Your task to perform on an android device: change the upload size in google photos Image 0: 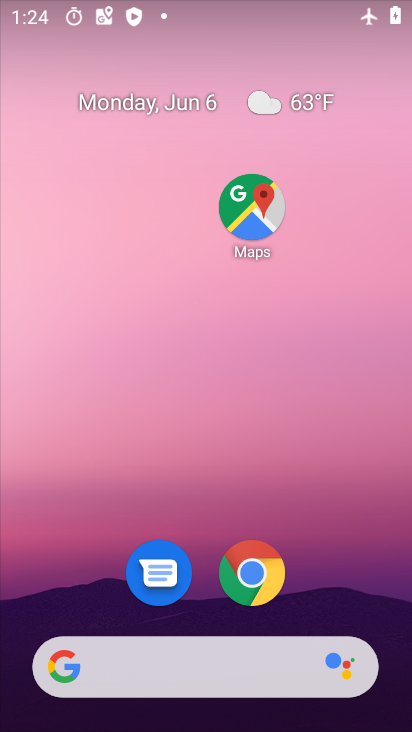
Step 0: drag from (204, 495) to (164, 54)
Your task to perform on an android device: change the upload size in google photos Image 1: 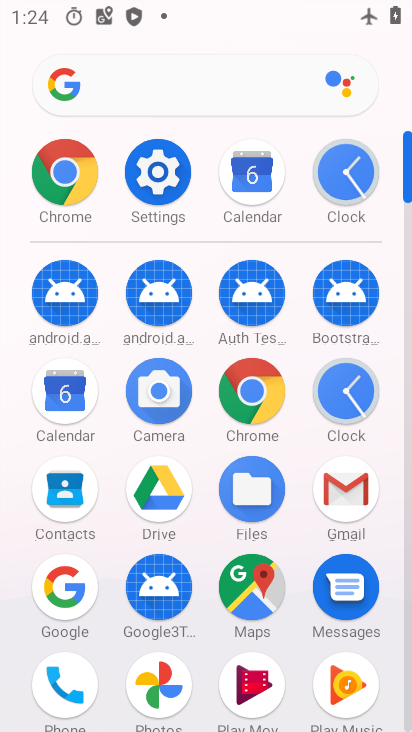
Step 1: drag from (220, 247) to (208, 83)
Your task to perform on an android device: change the upload size in google photos Image 2: 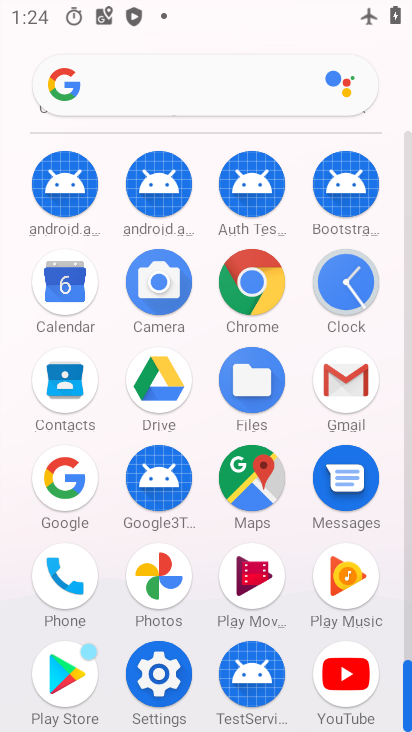
Step 2: click (160, 588)
Your task to perform on an android device: change the upload size in google photos Image 3: 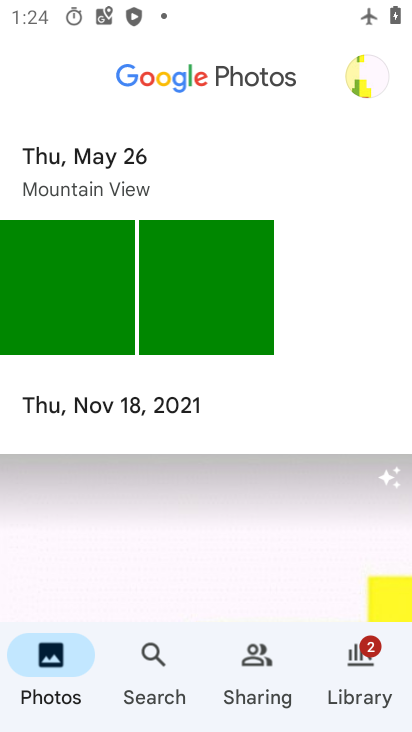
Step 3: click (355, 82)
Your task to perform on an android device: change the upload size in google photos Image 4: 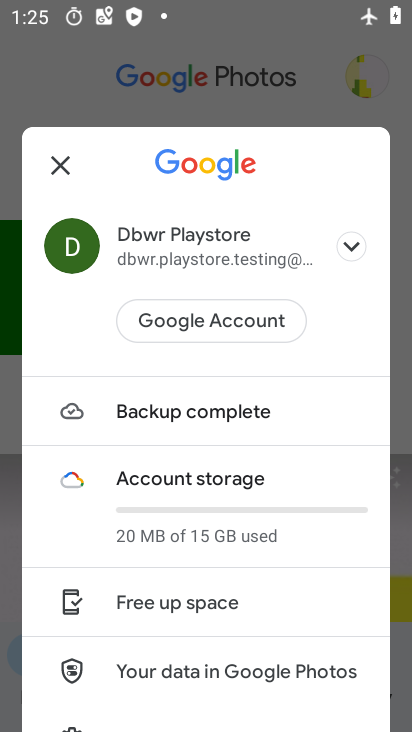
Step 4: click (244, 417)
Your task to perform on an android device: change the upload size in google photos Image 5: 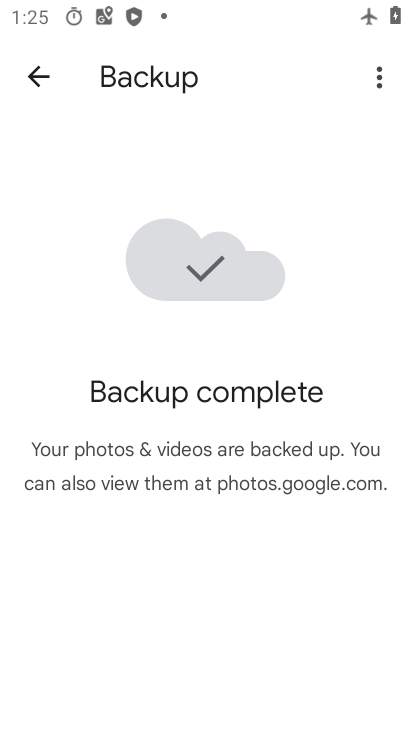
Step 5: click (380, 72)
Your task to perform on an android device: change the upload size in google photos Image 6: 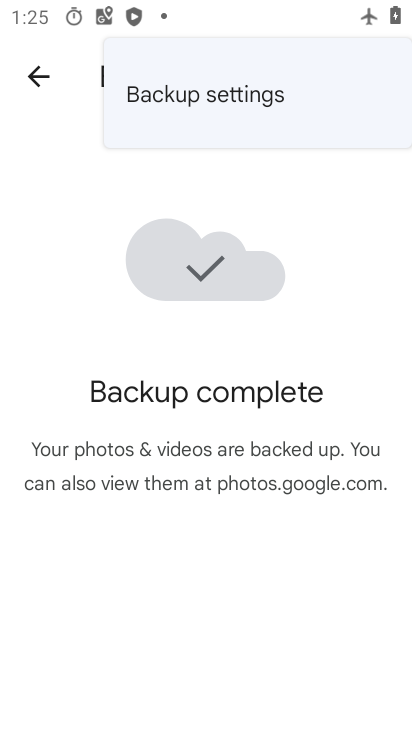
Step 6: click (297, 87)
Your task to perform on an android device: change the upload size in google photos Image 7: 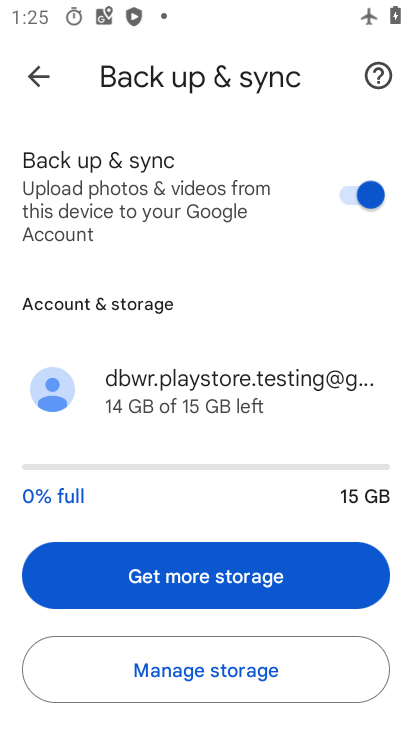
Step 7: drag from (244, 526) to (220, 17)
Your task to perform on an android device: change the upload size in google photos Image 8: 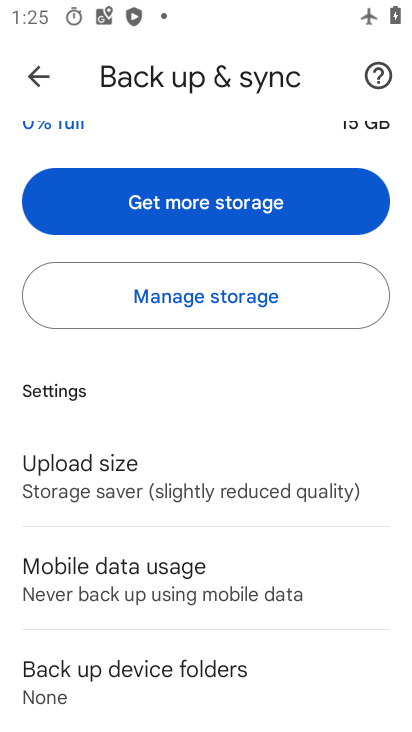
Step 8: click (169, 500)
Your task to perform on an android device: change the upload size in google photos Image 9: 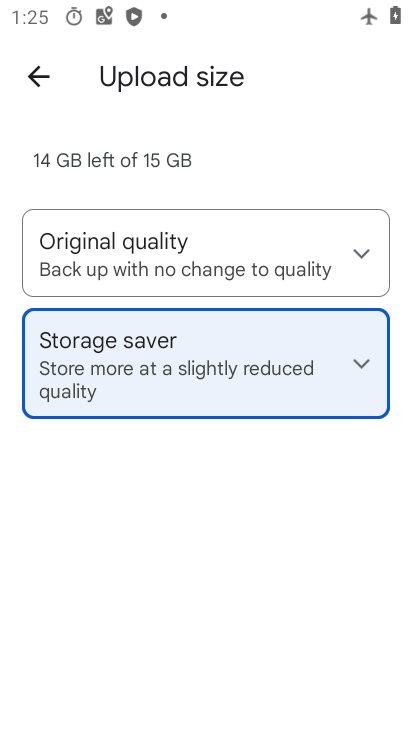
Step 9: click (197, 258)
Your task to perform on an android device: change the upload size in google photos Image 10: 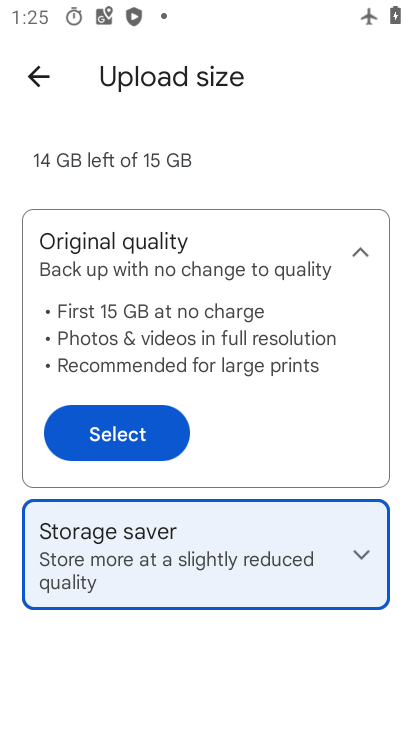
Step 10: click (149, 429)
Your task to perform on an android device: change the upload size in google photos Image 11: 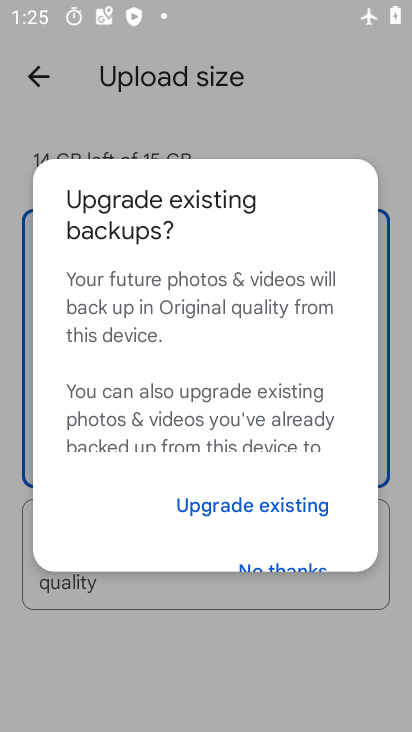
Step 11: drag from (261, 523) to (275, 189)
Your task to perform on an android device: change the upload size in google photos Image 12: 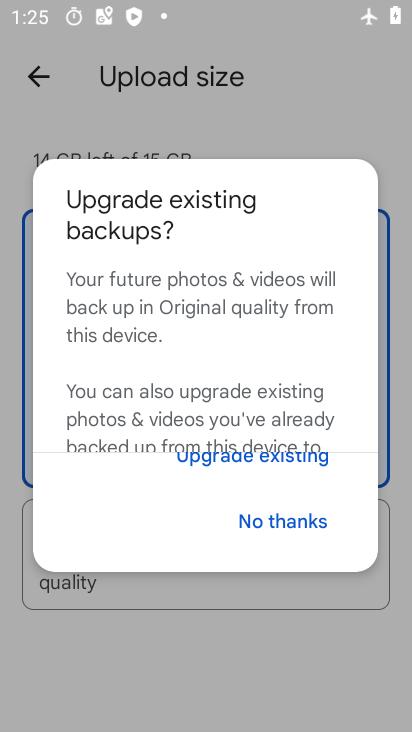
Step 12: click (278, 526)
Your task to perform on an android device: change the upload size in google photos Image 13: 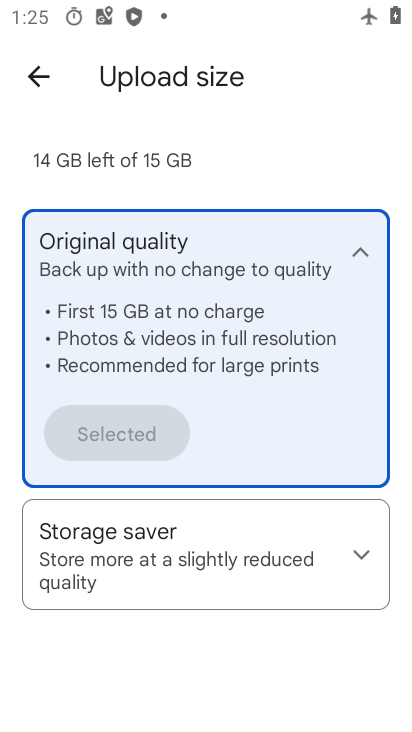
Step 13: task complete